Your task to perform on an android device: turn off location history Image 0: 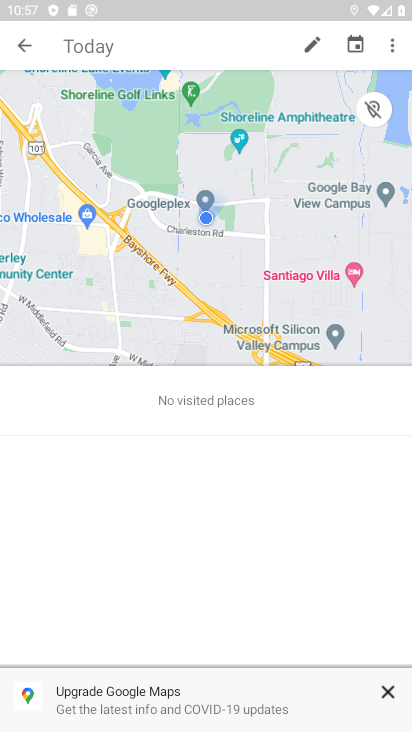
Step 0: press home button
Your task to perform on an android device: turn off location history Image 1: 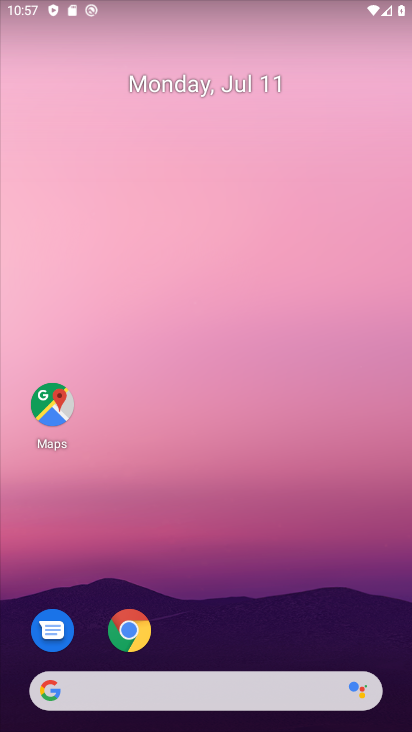
Step 1: drag from (206, 526) to (218, 57)
Your task to perform on an android device: turn off location history Image 2: 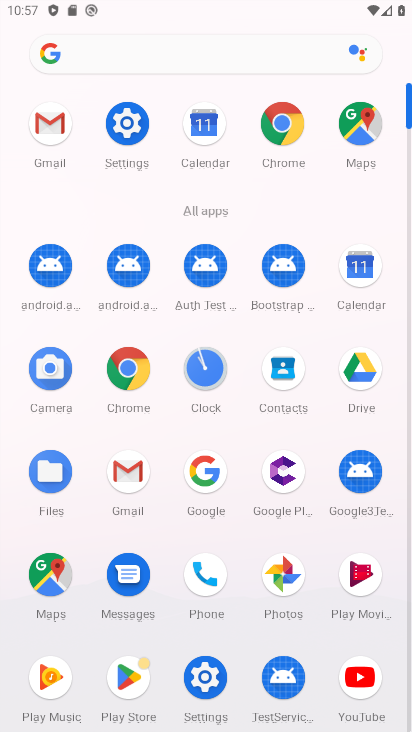
Step 2: click (205, 671)
Your task to perform on an android device: turn off location history Image 3: 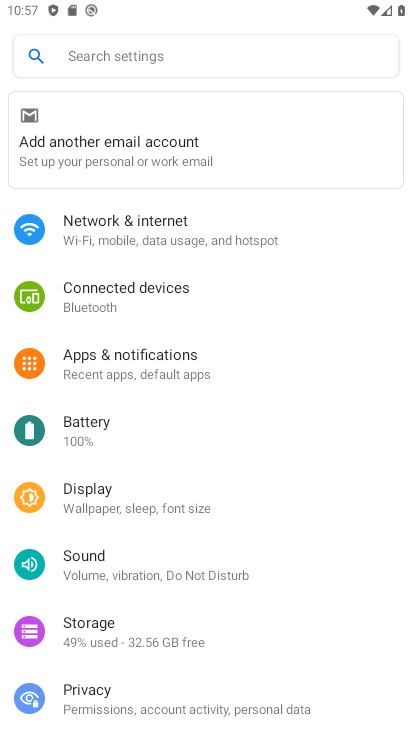
Step 3: drag from (167, 683) to (181, 294)
Your task to perform on an android device: turn off location history Image 4: 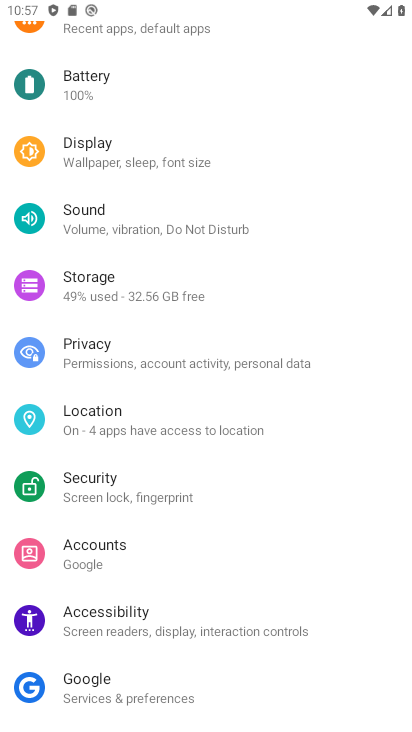
Step 4: click (88, 430)
Your task to perform on an android device: turn off location history Image 5: 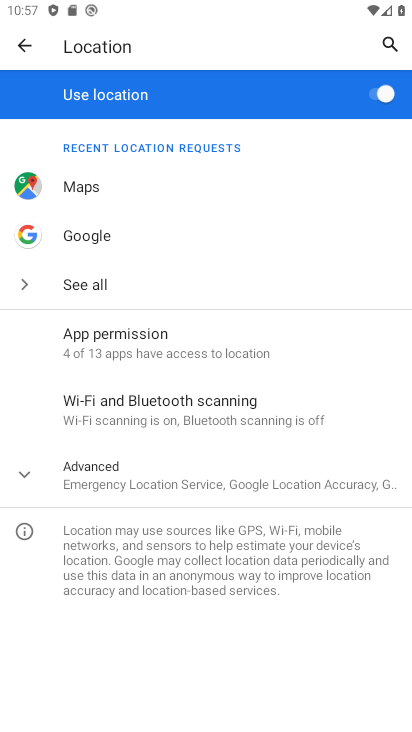
Step 5: click (149, 482)
Your task to perform on an android device: turn off location history Image 6: 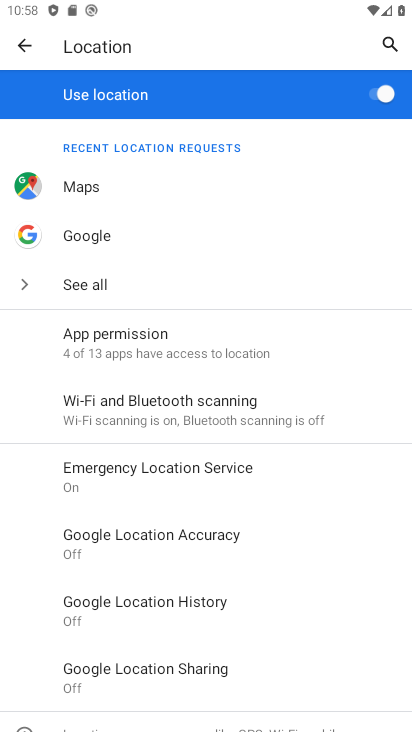
Step 6: click (178, 608)
Your task to perform on an android device: turn off location history Image 7: 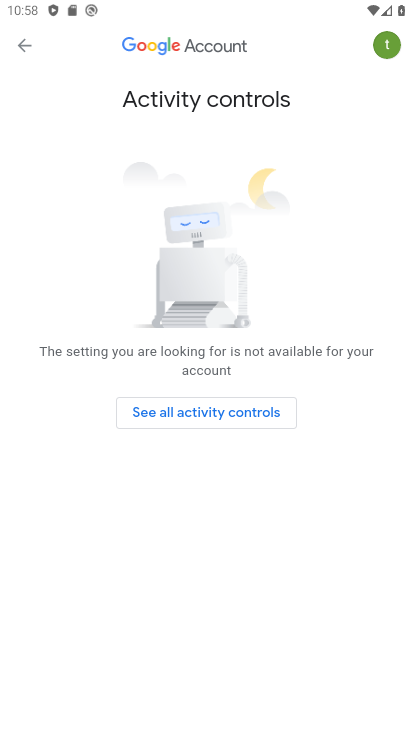
Step 7: task complete